Your task to perform on an android device: Open Wikipedia Image 0: 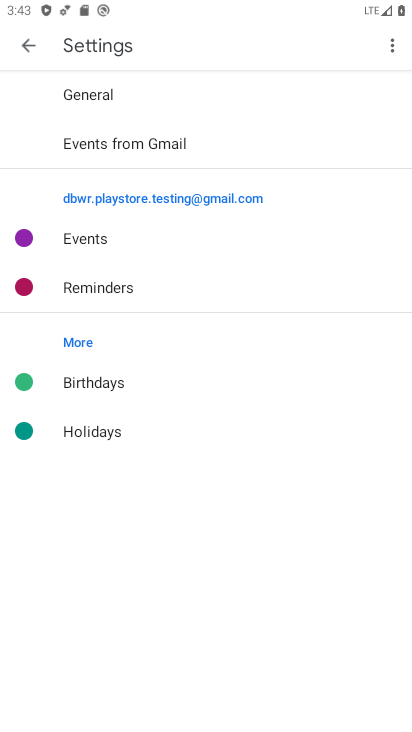
Step 0: press back button
Your task to perform on an android device: Open Wikipedia Image 1: 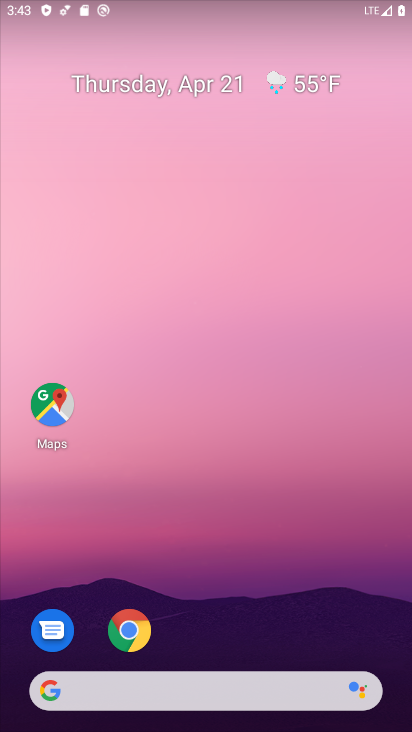
Step 1: drag from (238, 511) to (330, 0)
Your task to perform on an android device: Open Wikipedia Image 2: 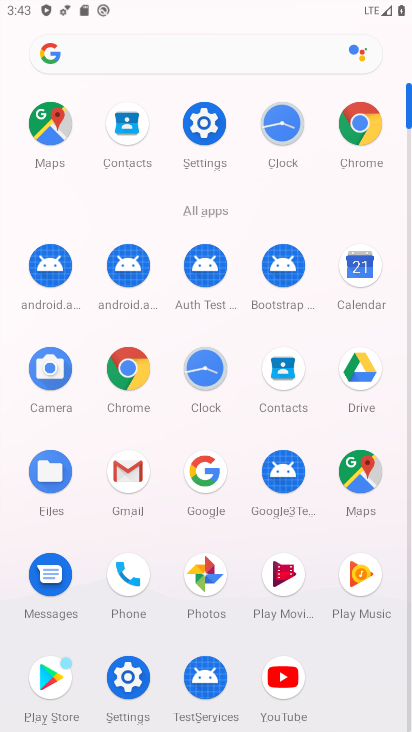
Step 2: click (362, 121)
Your task to perform on an android device: Open Wikipedia Image 3: 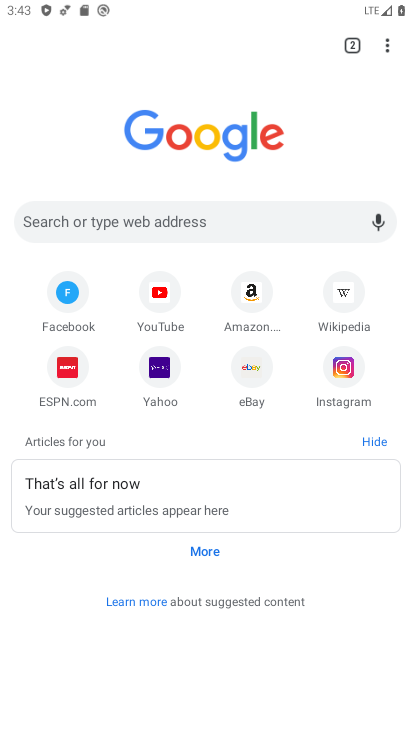
Step 3: click (348, 292)
Your task to perform on an android device: Open Wikipedia Image 4: 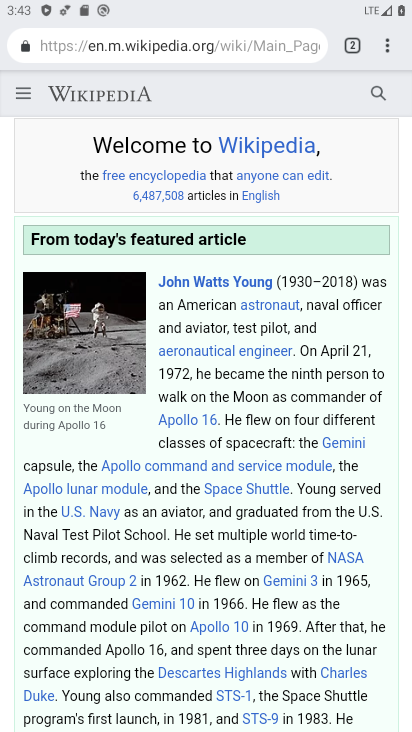
Step 4: task complete